Your task to perform on an android device: toggle location history Image 0: 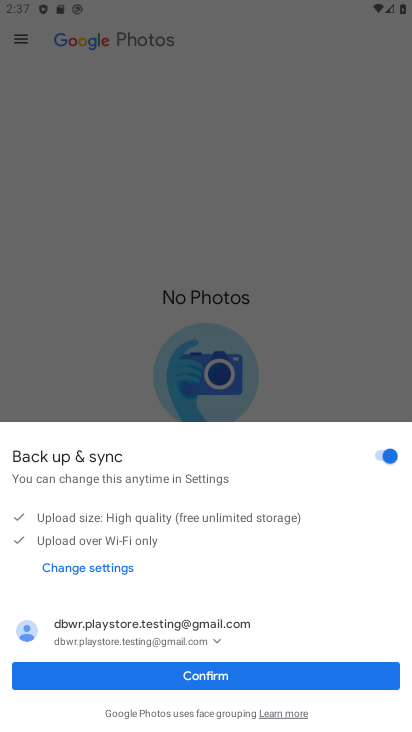
Step 0: press home button
Your task to perform on an android device: toggle location history Image 1: 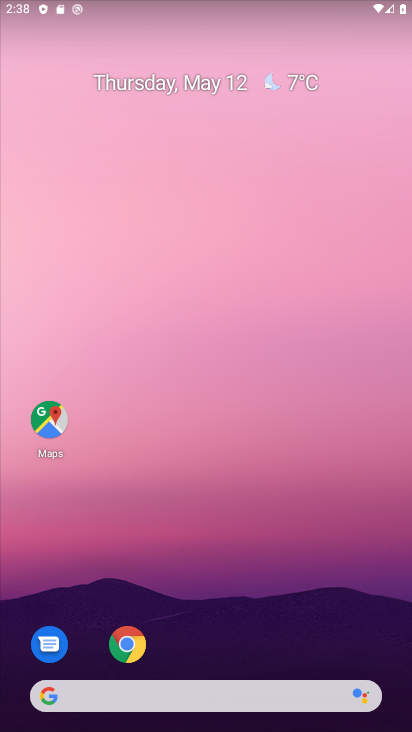
Step 1: drag from (220, 680) to (256, 162)
Your task to perform on an android device: toggle location history Image 2: 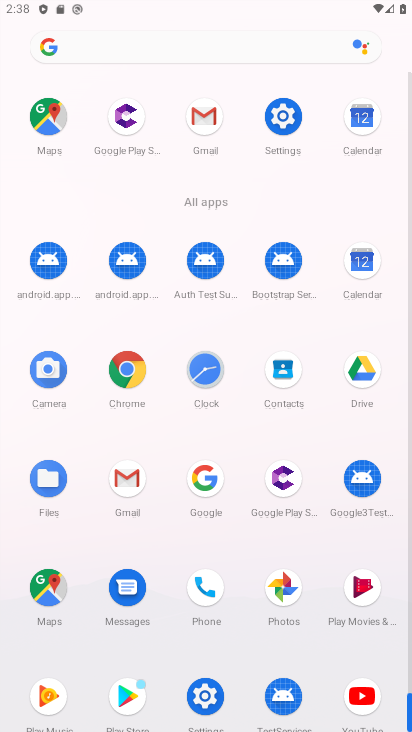
Step 2: click (198, 693)
Your task to perform on an android device: toggle location history Image 3: 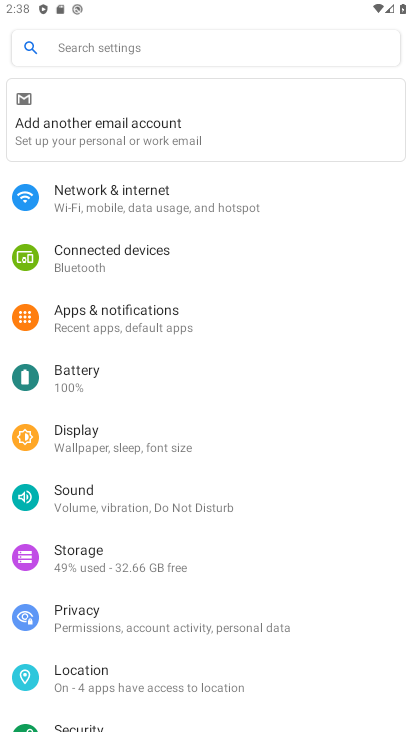
Step 3: drag from (123, 537) to (199, 199)
Your task to perform on an android device: toggle location history Image 4: 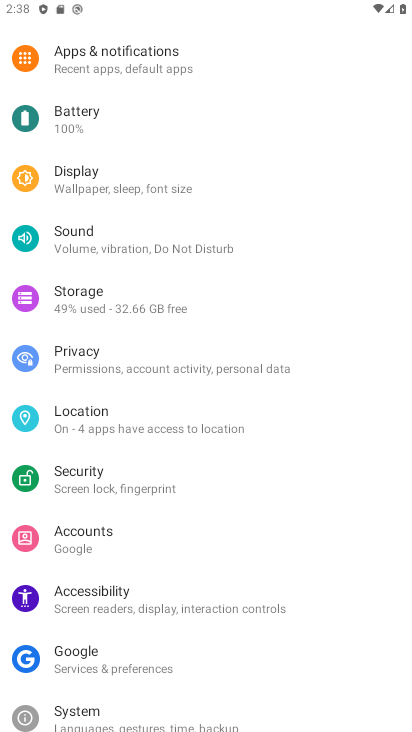
Step 4: drag from (89, 578) to (146, 317)
Your task to perform on an android device: toggle location history Image 5: 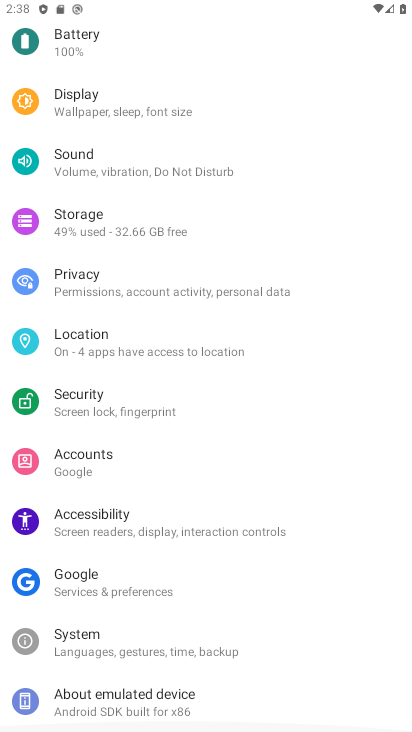
Step 5: click (130, 349)
Your task to perform on an android device: toggle location history Image 6: 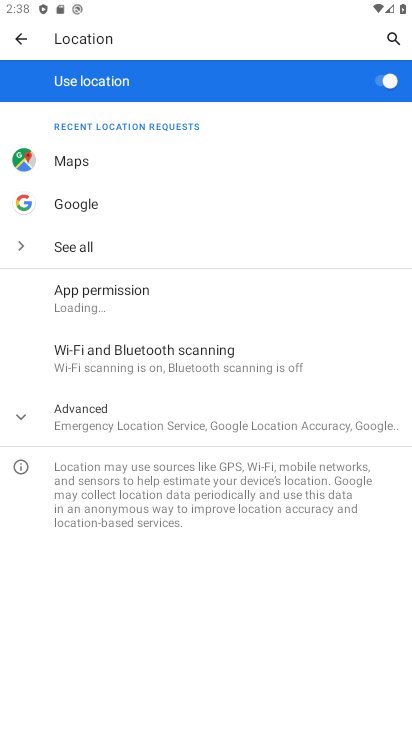
Step 6: click (144, 417)
Your task to perform on an android device: toggle location history Image 7: 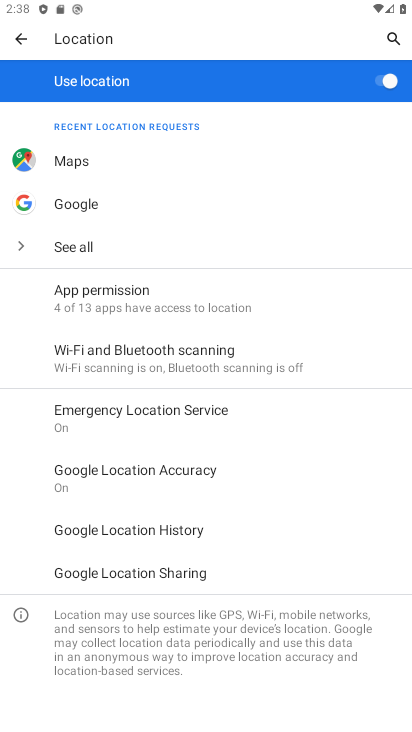
Step 7: click (142, 542)
Your task to perform on an android device: toggle location history Image 8: 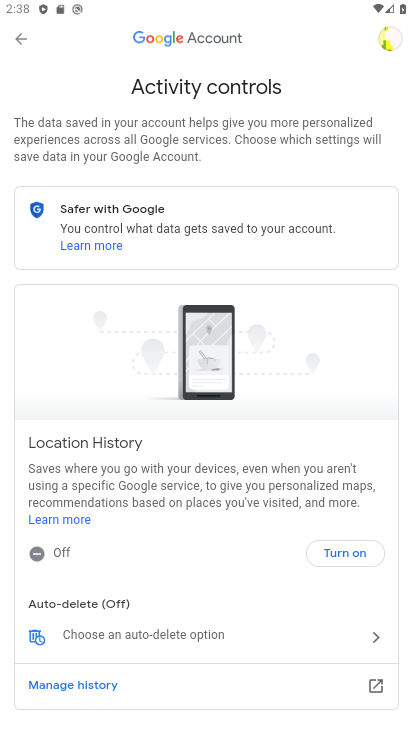
Step 8: click (345, 560)
Your task to perform on an android device: toggle location history Image 9: 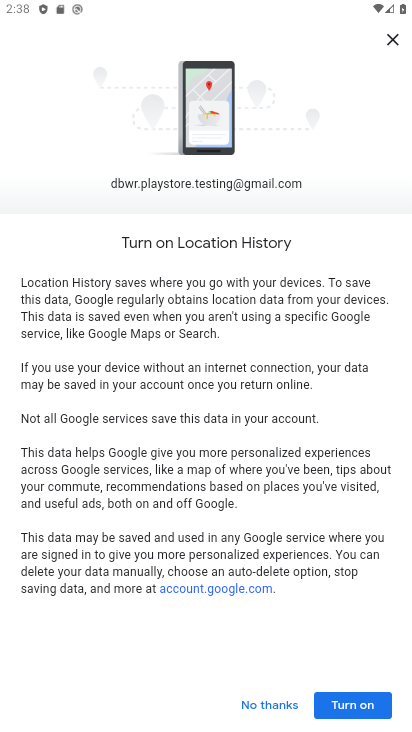
Step 9: click (354, 708)
Your task to perform on an android device: toggle location history Image 10: 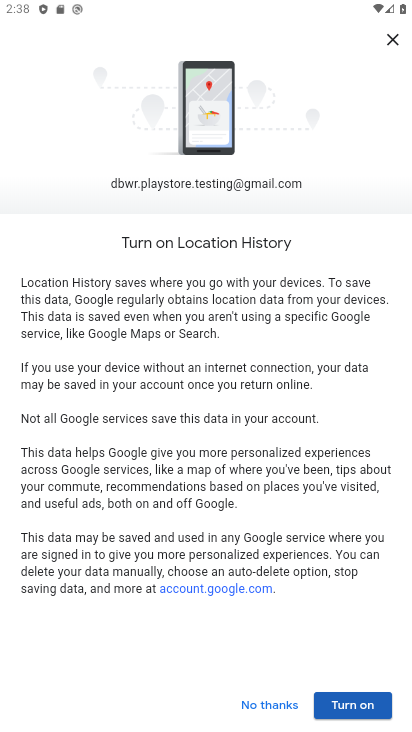
Step 10: click (361, 707)
Your task to perform on an android device: toggle location history Image 11: 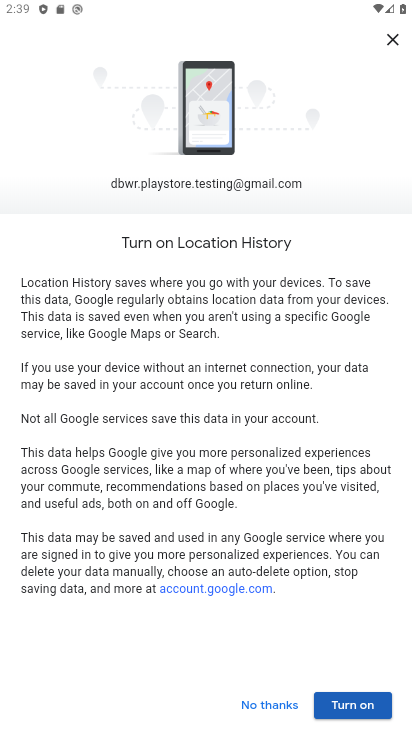
Step 11: click (363, 714)
Your task to perform on an android device: toggle location history Image 12: 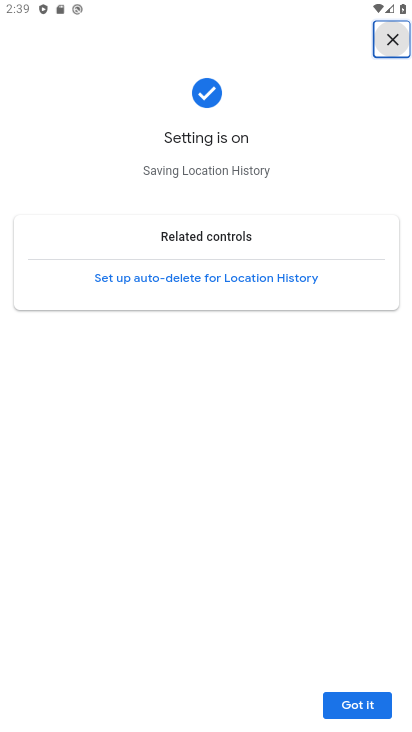
Step 12: click (361, 712)
Your task to perform on an android device: toggle location history Image 13: 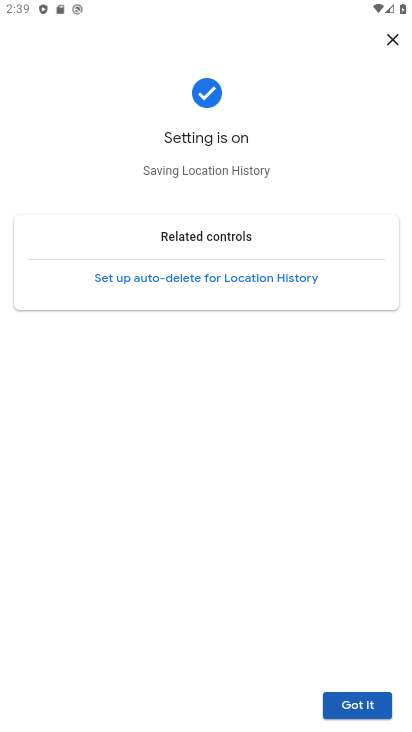
Step 13: click (358, 700)
Your task to perform on an android device: toggle location history Image 14: 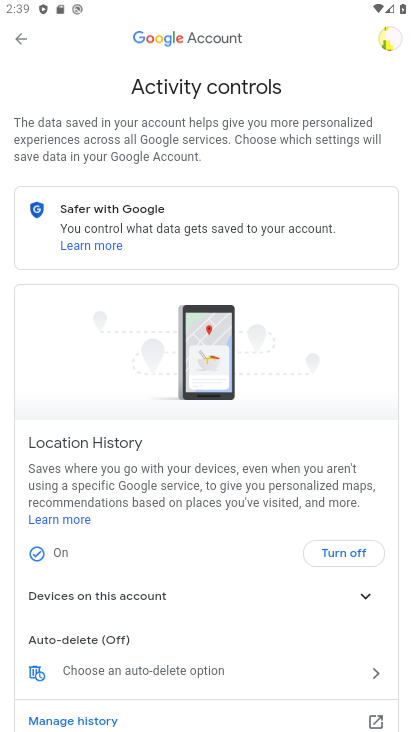
Step 14: task complete